Your task to perform on an android device: open sync settings in chrome Image 0: 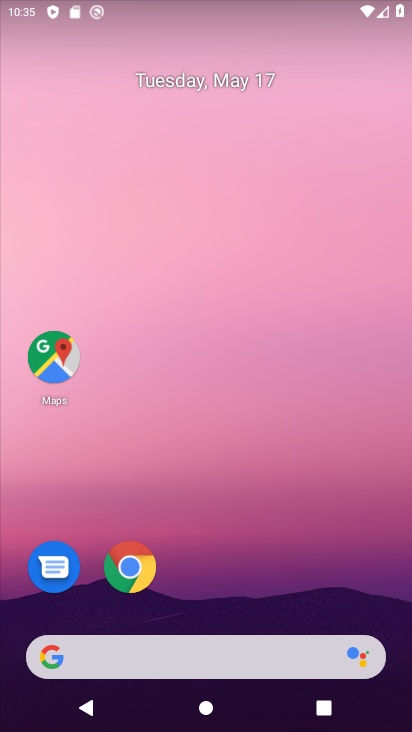
Step 0: drag from (260, 574) to (214, 216)
Your task to perform on an android device: open sync settings in chrome Image 1: 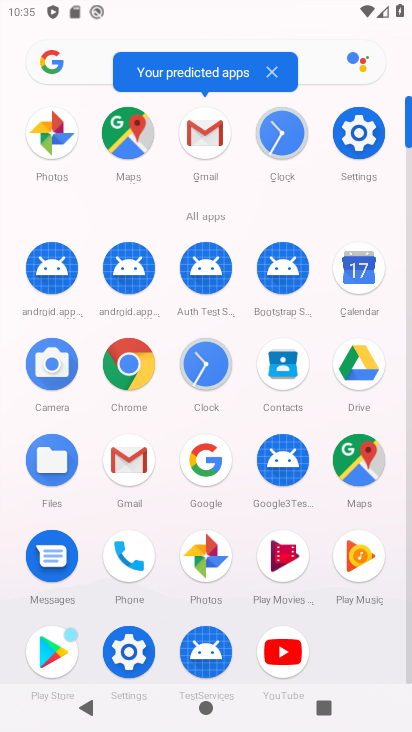
Step 1: click (131, 404)
Your task to perform on an android device: open sync settings in chrome Image 2: 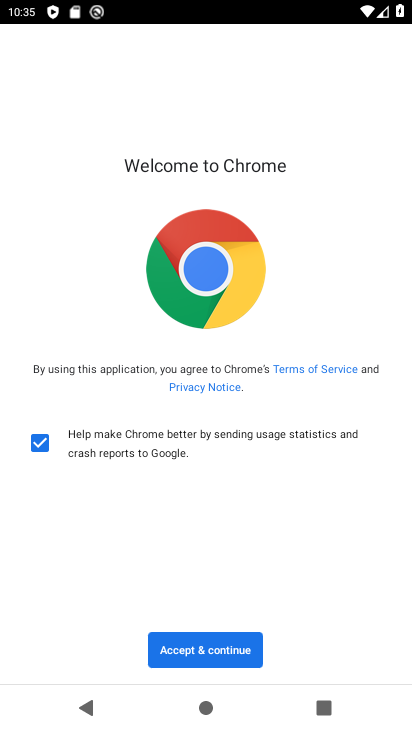
Step 2: click (201, 648)
Your task to perform on an android device: open sync settings in chrome Image 3: 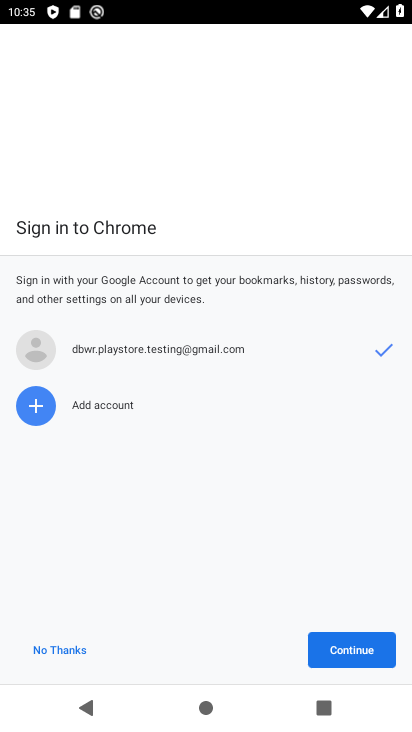
Step 3: click (350, 651)
Your task to perform on an android device: open sync settings in chrome Image 4: 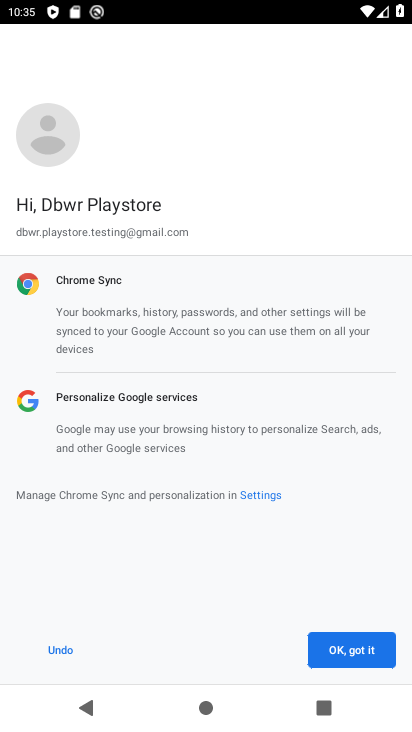
Step 4: click (350, 651)
Your task to perform on an android device: open sync settings in chrome Image 5: 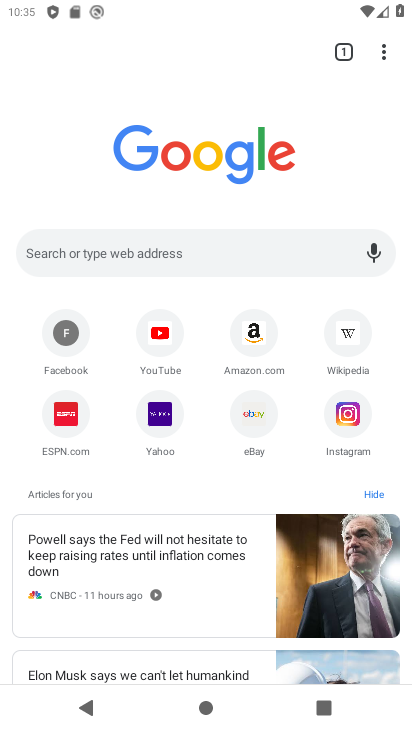
Step 5: click (375, 48)
Your task to perform on an android device: open sync settings in chrome Image 6: 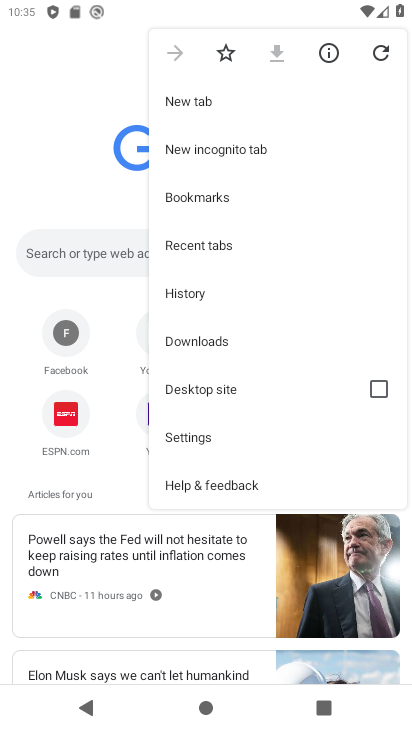
Step 6: click (198, 439)
Your task to perform on an android device: open sync settings in chrome Image 7: 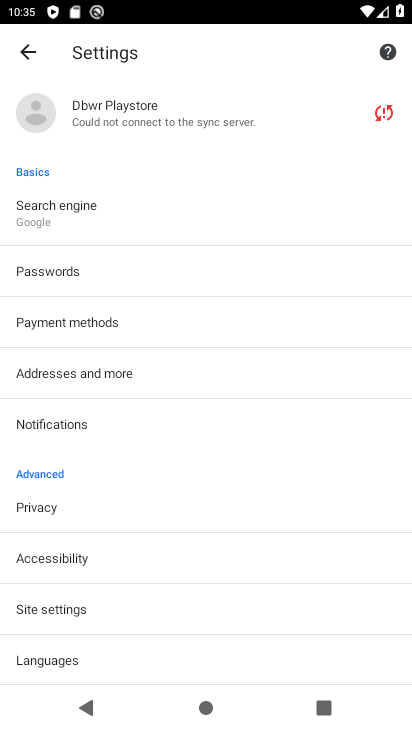
Step 7: click (143, 115)
Your task to perform on an android device: open sync settings in chrome Image 8: 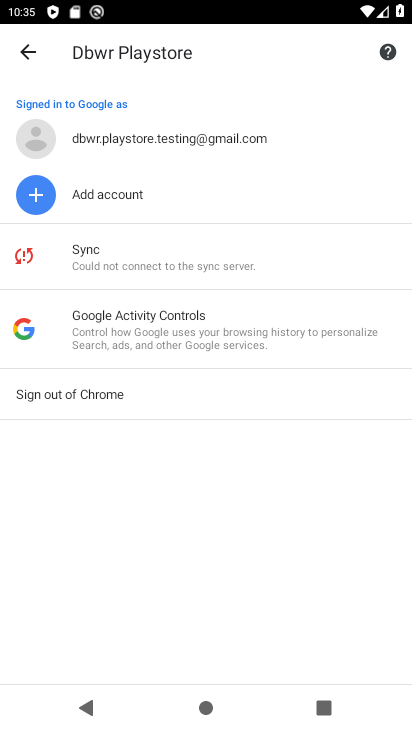
Step 8: click (105, 262)
Your task to perform on an android device: open sync settings in chrome Image 9: 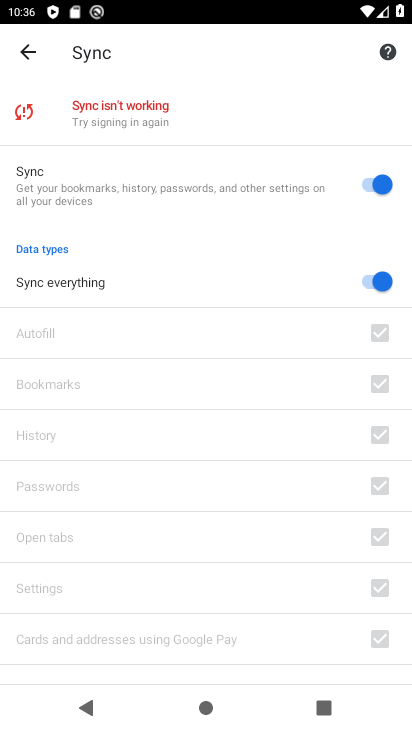
Step 9: task complete